Your task to perform on an android device: make emails show in primary in the gmail app Image 0: 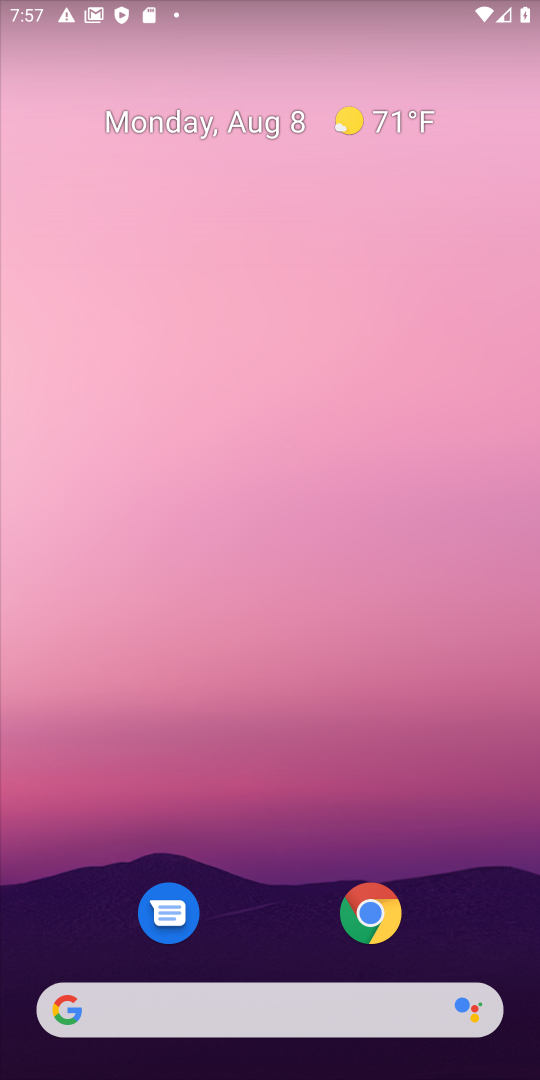
Step 0: drag from (240, 1002) to (312, 191)
Your task to perform on an android device: make emails show in primary in the gmail app Image 1: 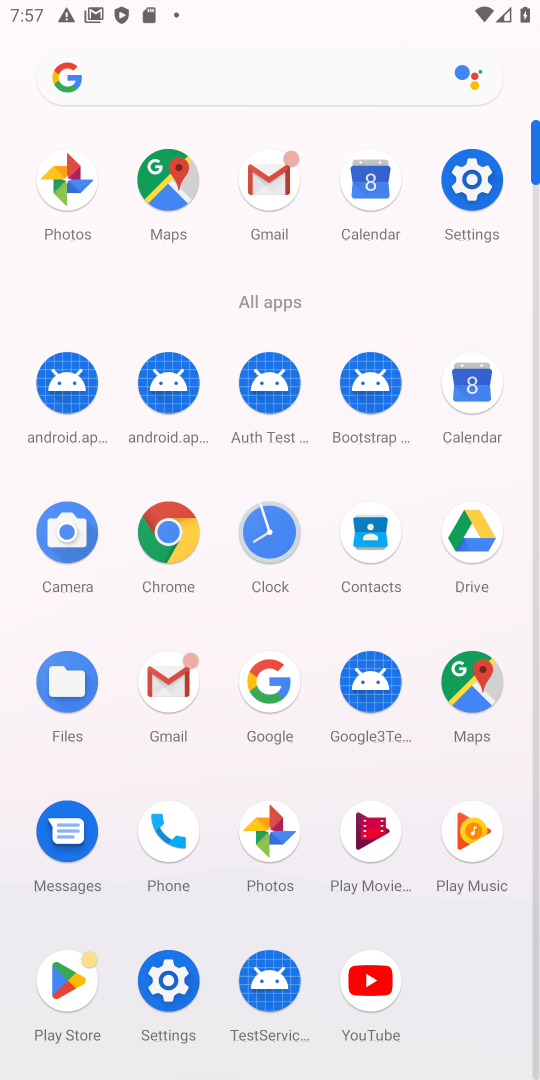
Step 1: click (268, 178)
Your task to perform on an android device: make emails show in primary in the gmail app Image 2: 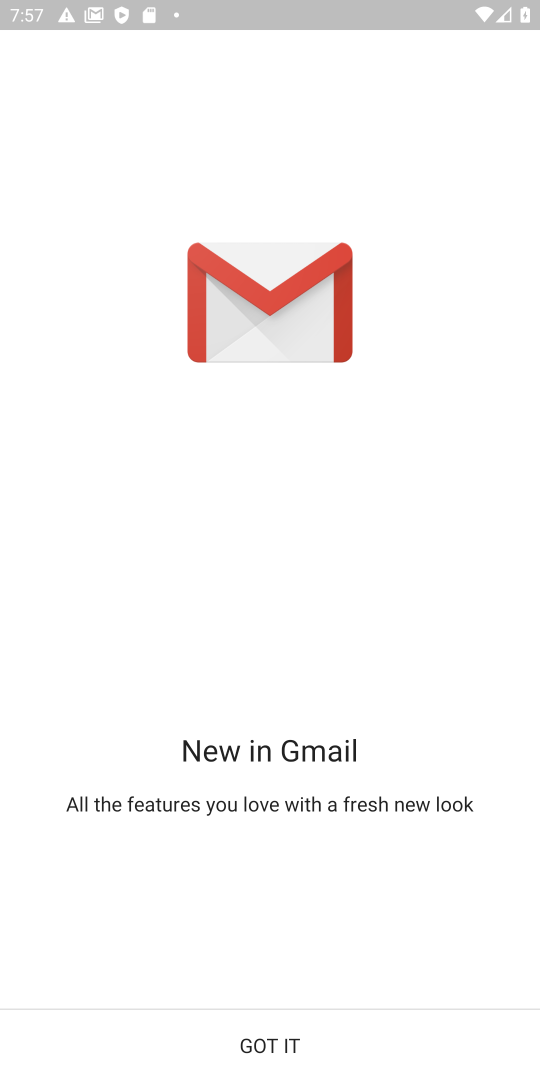
Step 2: click (262, 1038)
Your task to perform on an android device: make emails show in primary in the gmail app Image 3: 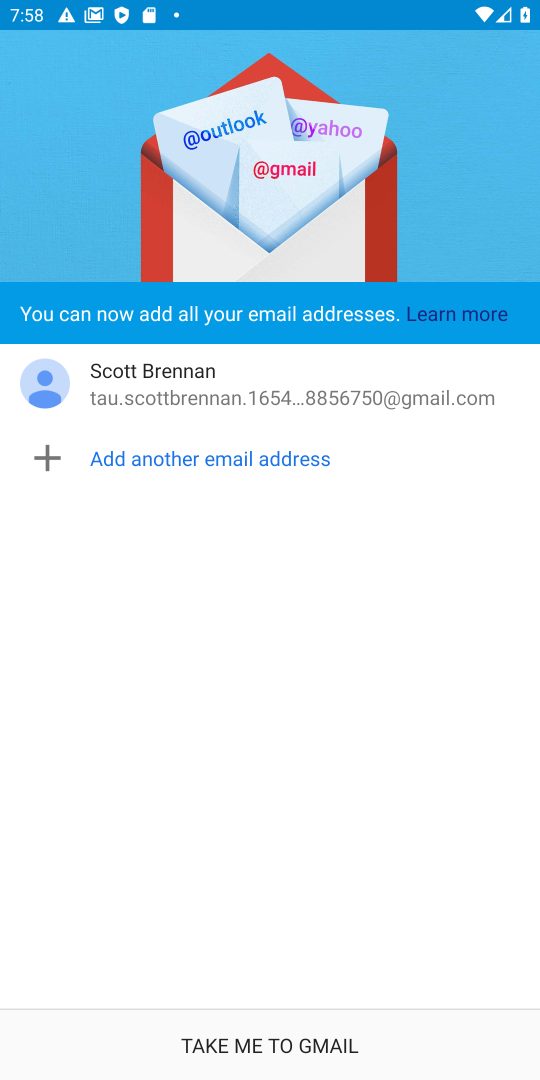
Step 3: click (257, 1051)
Your task to perform on an android device: make emails show in primary in the gmail app Image 4: 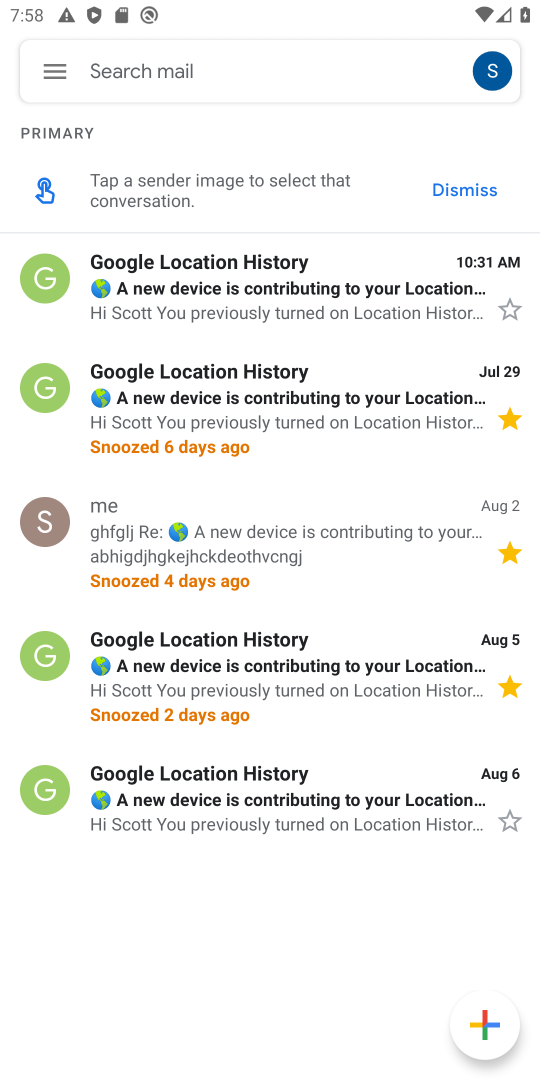
Step 4: task complete